Your task to perform on an android device: Open settings on Google Maps Image 0: 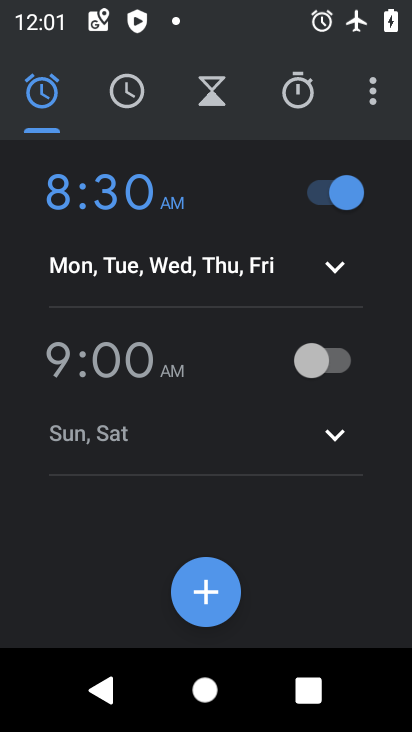
Step 0: task complete